Your task to perform on an android device: set an alarm Image 0: 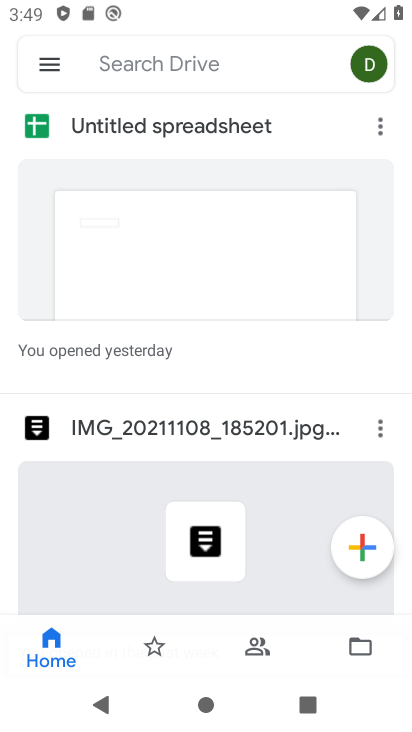
Step 0: press home button
Your task to perform on an android device: set an alarm Image 1: 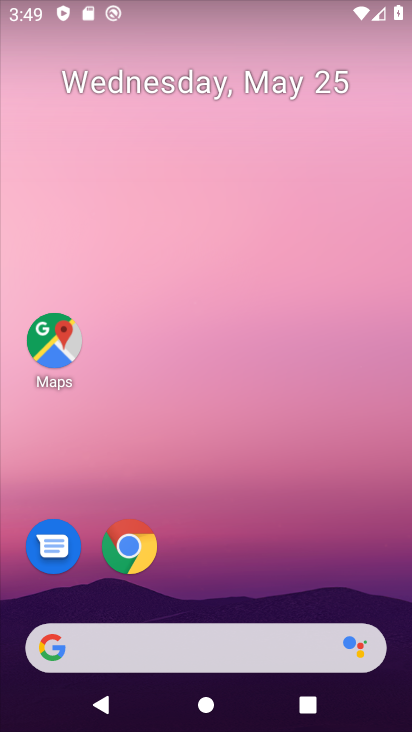
Step 1: drag from (233, 599) to (180, 0)
Your task to perform on an android device: set an alarm Image 2: 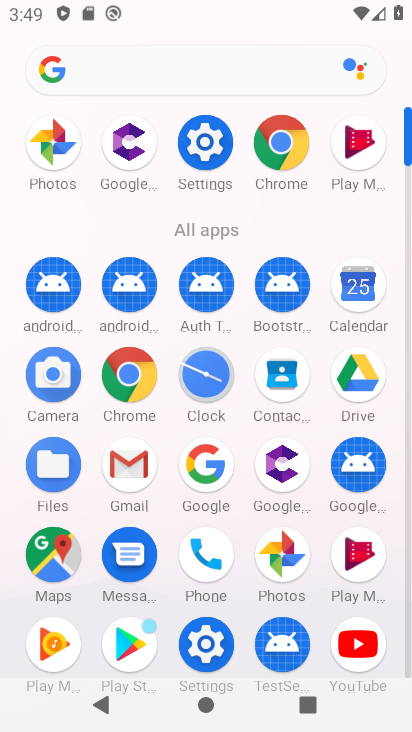
Step 2: click (199, 376)
Your task to perform on an android device: set an alarm Image 3: 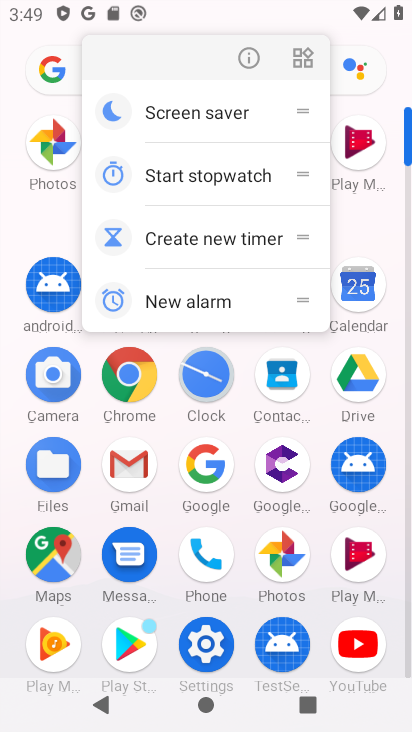
Step 3: click (210, 371)
Your task to perform on an android device: set an alarm Image 4: 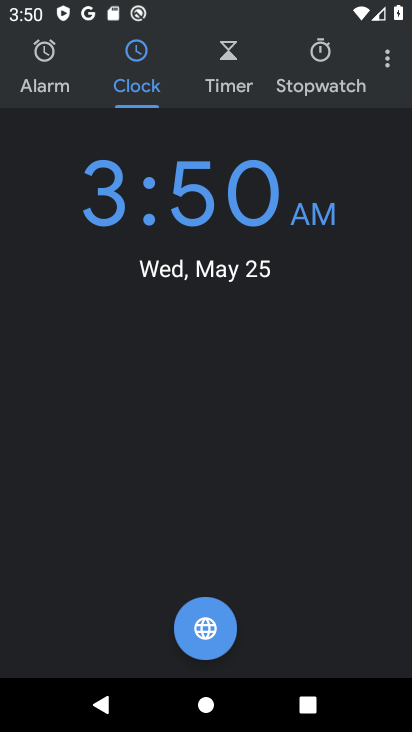
Step 4: click (29, 74)
Your task to perform on an android device: set an alarm Image 5: 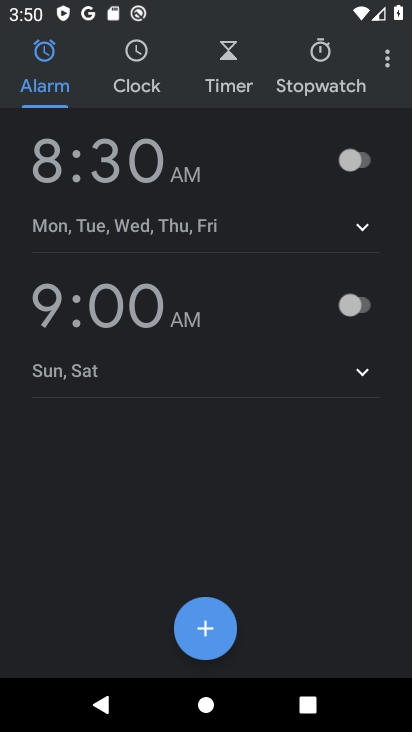
Step 5: click (199, 628)
Your task to perform on an android device: set an alarm Image 6: 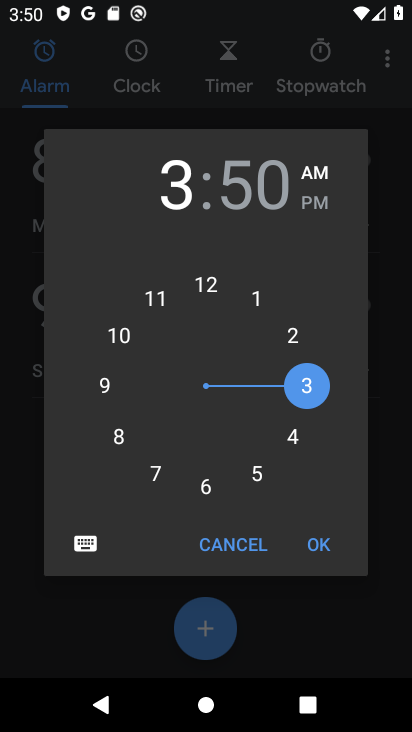
Step 6: click (314, 538)
Your task to perform on an android device: set an alarm Image 7: 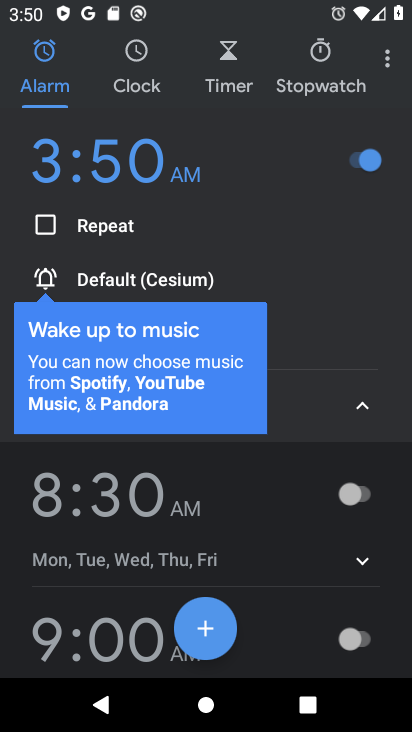
Step 7: click (346, 402)
Your task to perform on an android device: set an alarm Image 8: 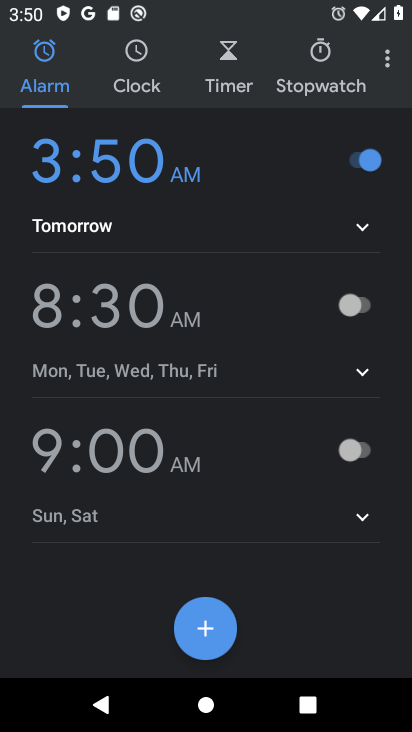
Step 8: task complete